Your task to perform on an android device: Go to Android settings Image 0: 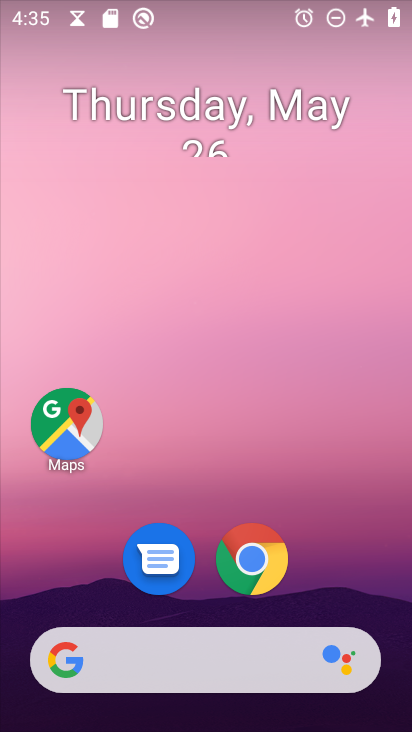
Step 0: drag from (336, 459) to (249, 15)
Your task to perform on an android device: Go to Android settings Image 1: 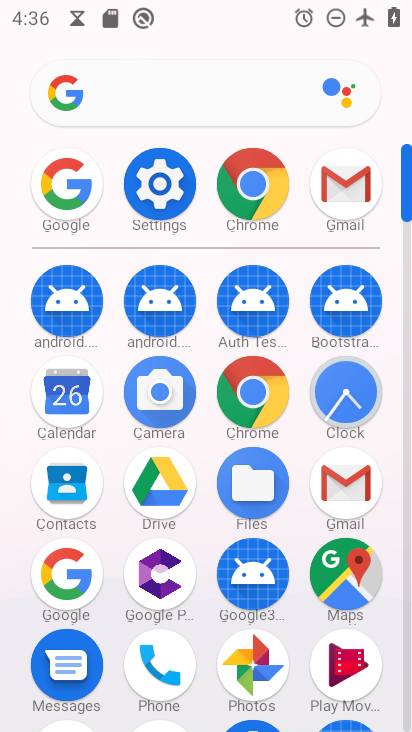
Step 1: click (184, 181)
Your task to perform on an android device: Go to Android settings Image 2: 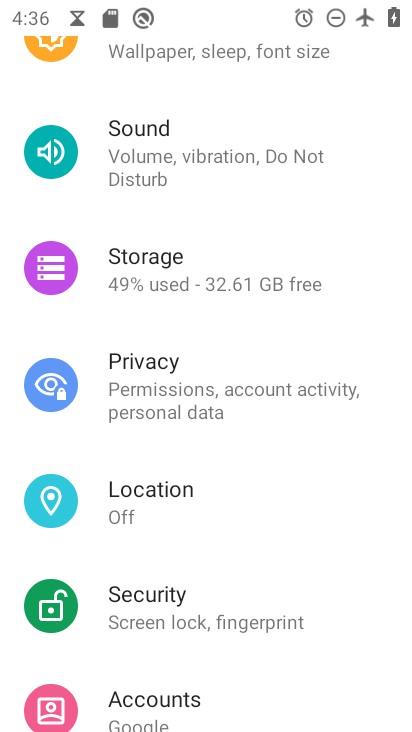
Step 2: drag from (274, 659) to (241, 19)
Your task to perform on an android device: Go to Android settings Image 3: 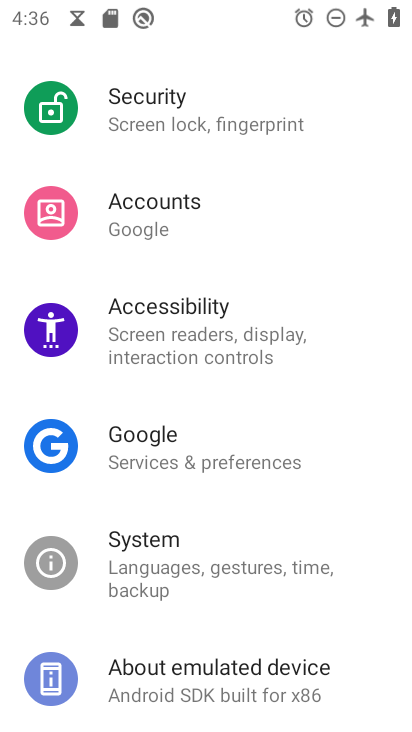
Step 3: click (234, 672)
Your task to perform on an android device: Go to Android settings Image 4: 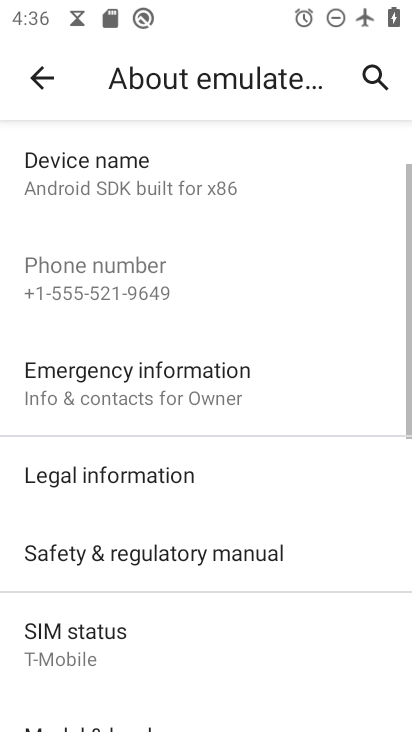
Step 4: drag from (240, 579) to (214, 68)
Your task to perform on an android device: Go to Android settings Image 5: 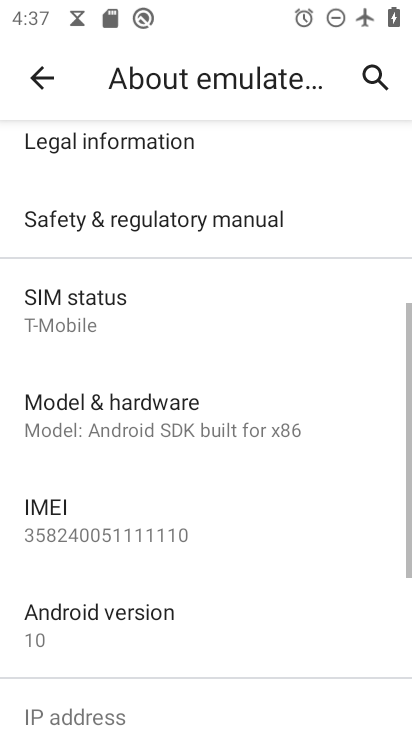
Step 5: click (159, 631)
Your task to perform on an android device: Go to Android settings Image 6: 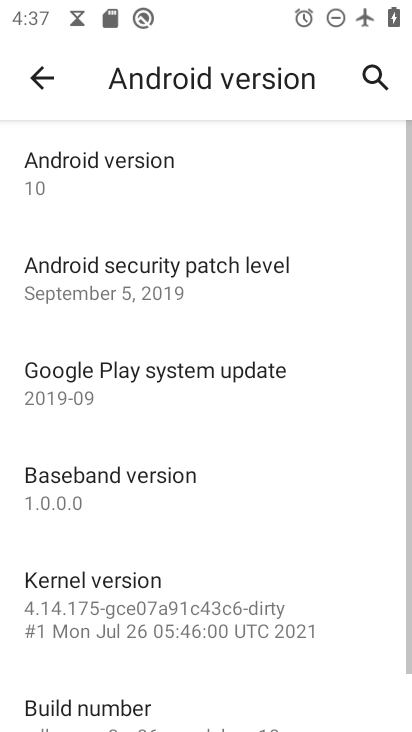
Step 6: task complete